Your task to perform on an android device: Go to Yahoo.com Image 0: 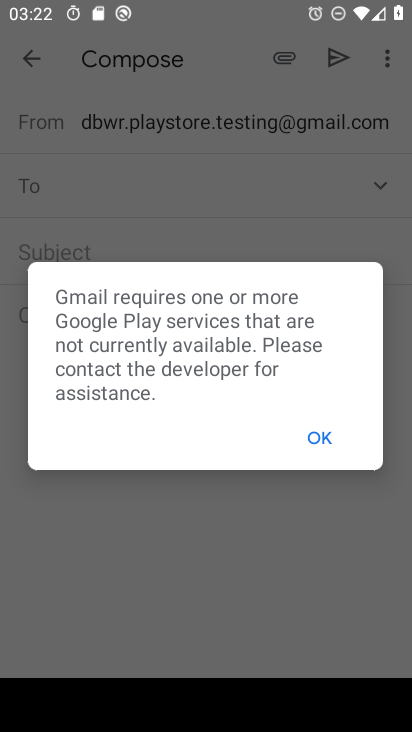
Step 0: click (337, 441)
Your task to perform on an android device: Go to Yahoo.com Image 1: 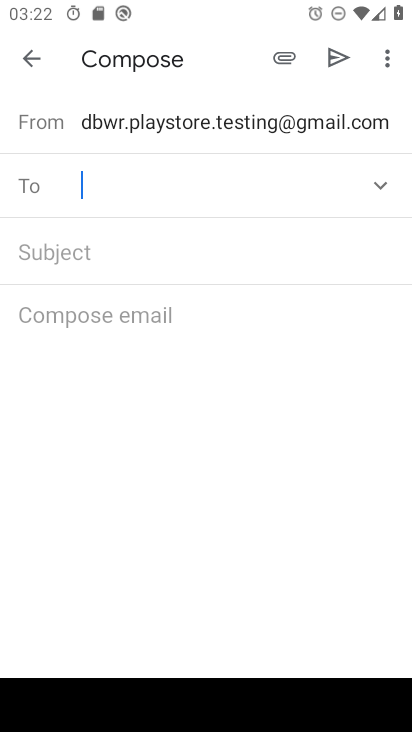
Step 1: press home button
Your task to perform on an android device: Go to Yahoo.com Image 2: 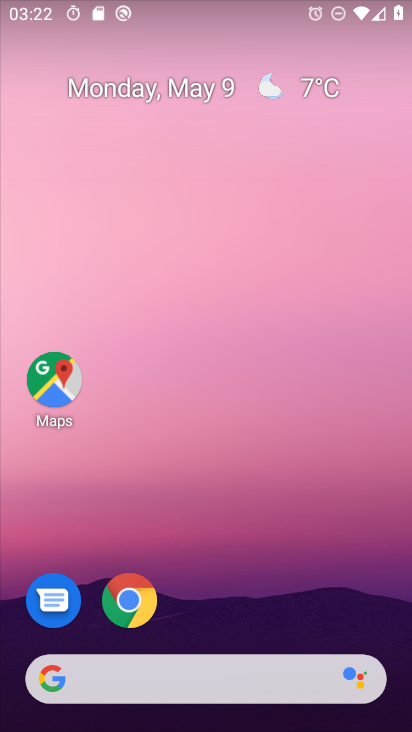
Step 2: click (143, 598)
Your task to perform on an android device: Go to Yahoo.com Image 3: 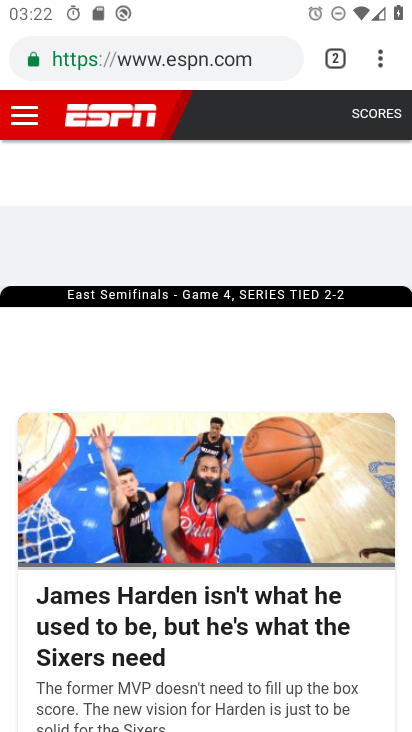
Step 3: click (259, 67)
Your task to perform on an android device: Go to Yahoo.com Image 4: 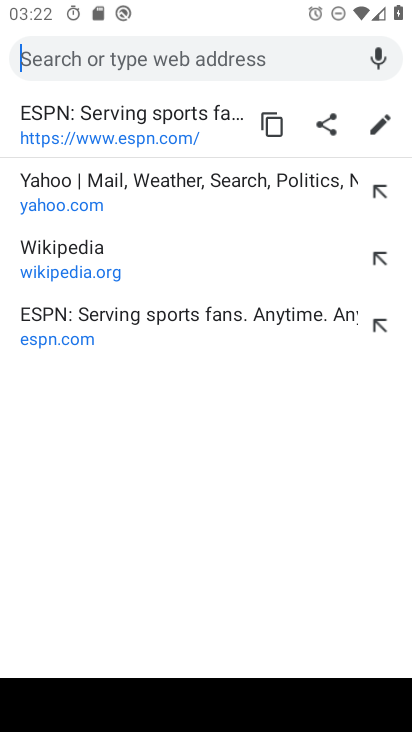
Step 4: type "yahoo.com"
Your task to perform on an android device: Go to Yahoo.com Image 5: 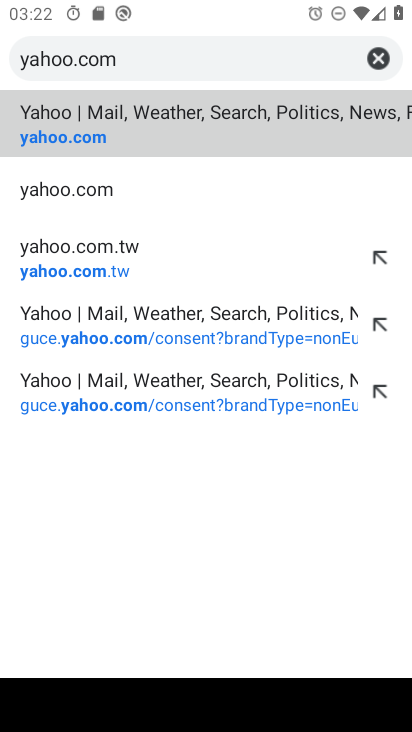
Step 5: click (226, 122)
Your task to perform on an android device: Go to Yahoo.com Image 6: 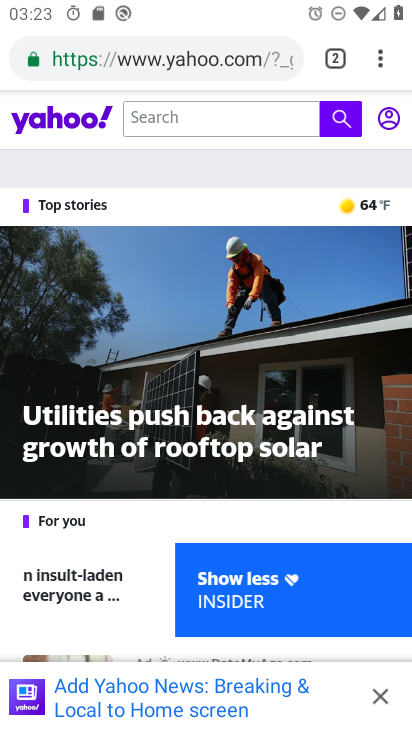
Step 6: task complete